Your task to perform on an android device: Go to eBay Image 0: 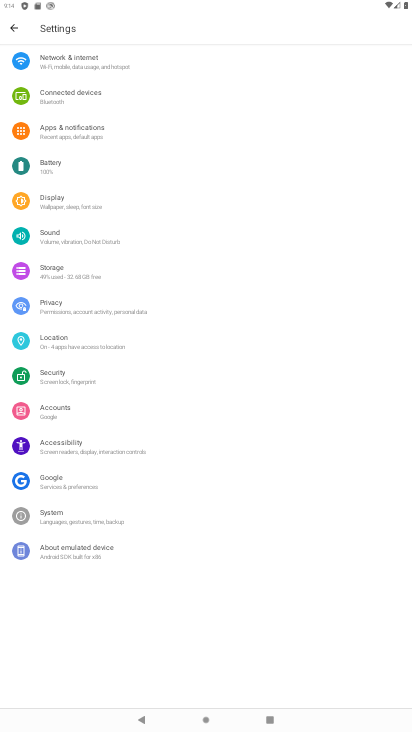
Step 0: press home button
Your task to perform on an android device: Go to eBay Image 1: 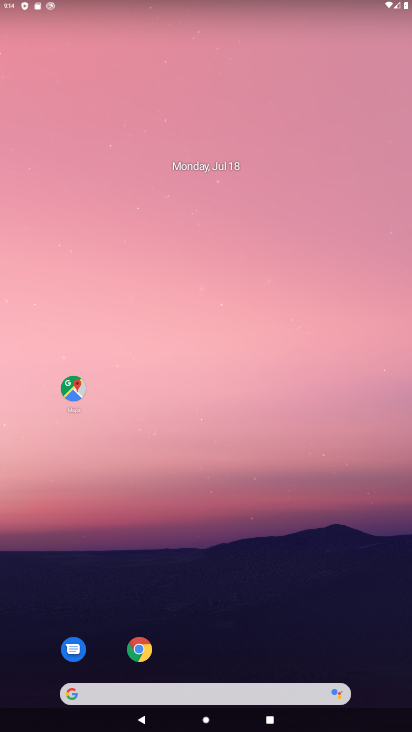
Step 1: click (130, 645)
Your task to perform on an android device: Go to eBay Image 2: 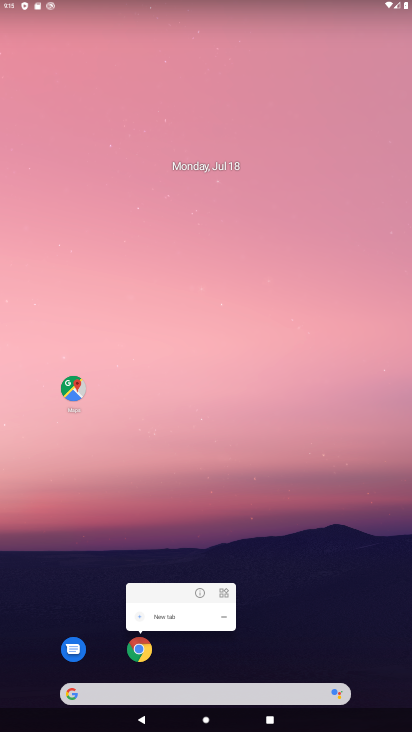
Step 2: click (144, 645)
Your task to perform on an android device: Go to eBay Image 3: 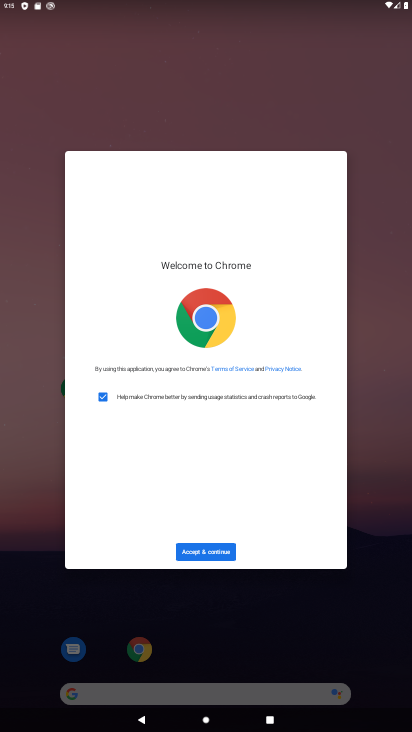
Step 3: click (230, 541)
Your task to perform on an android device: Go to eBay Image 4: 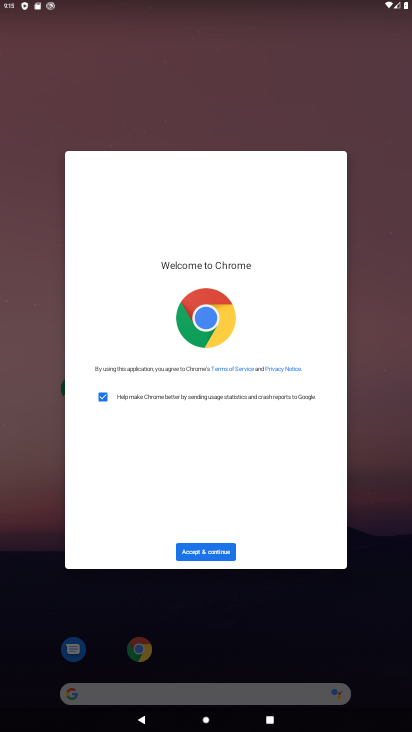
Step 4: click (185, 546)
Your task to perform on an android device: Go to eBay Image 5: 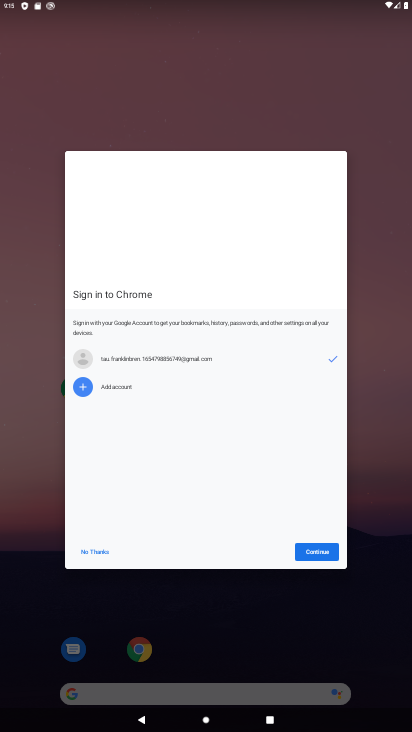
Step 5: click (89, 542)
Your task to perform on an android device: Go to eBay Image 6: 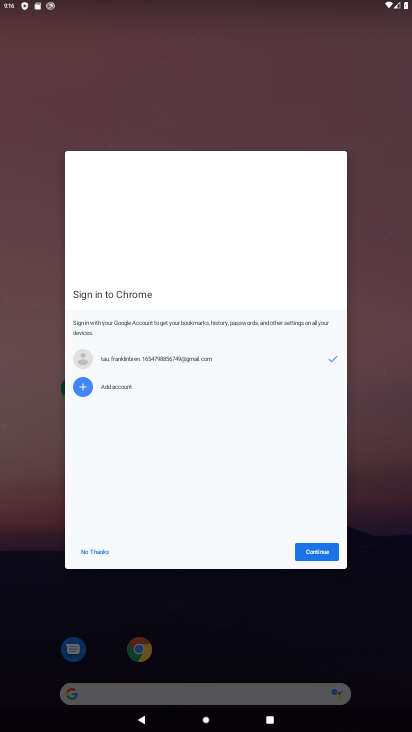
Step 6: click (82, 548)
Your task to perform on an android device: Go to eBay Image 7: 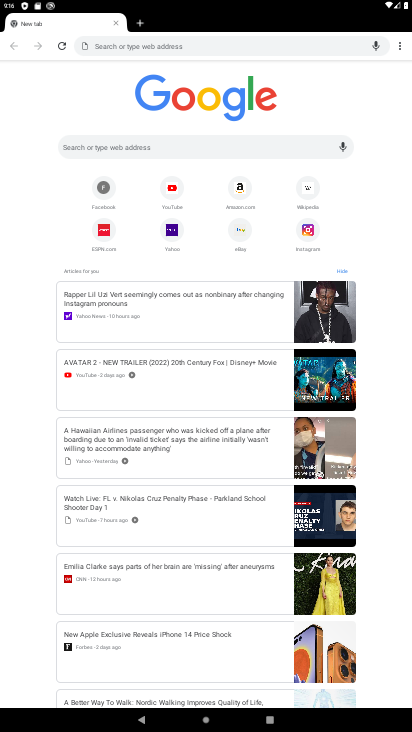
Step 7: click (237, 240)
Your task to perform on an android device: Go to eBay Image 8: 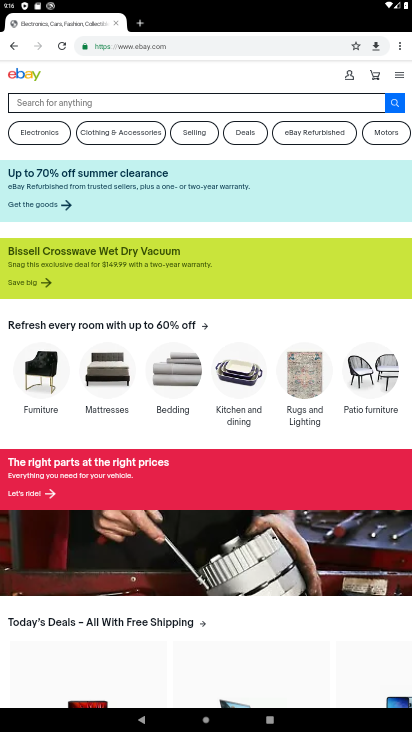
Step 8: task complete